Your task to perform on an android device: What's the weather going to be tomorrow? Image 0: 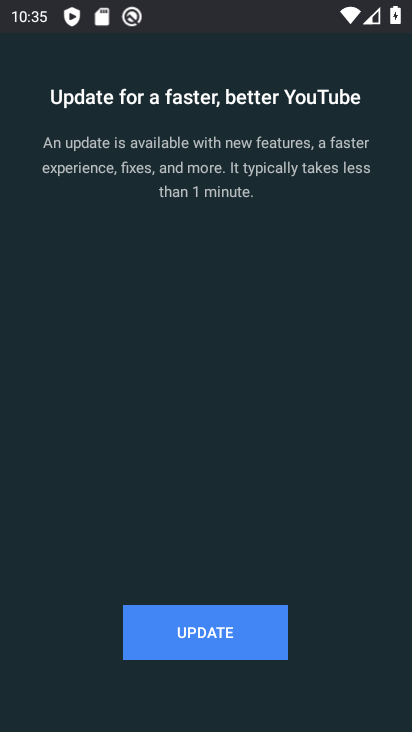
Step 0: press home button
Your task to perform on an android device: What's the weather going to be tomorrow? Image 1: 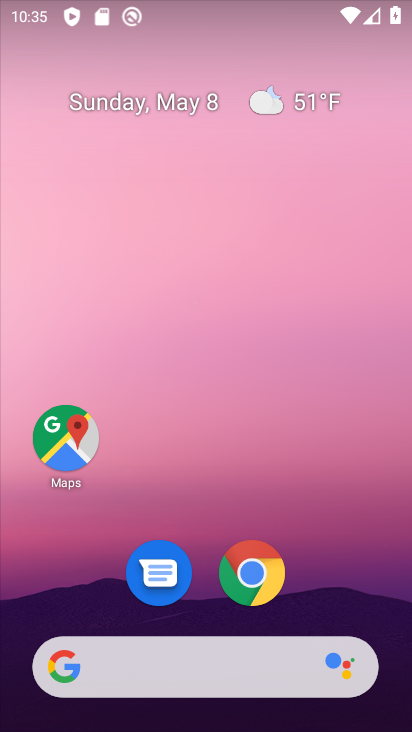
Step 1: drag from (190, 637) to (248, 258)
Your task to perform on an android device: What's the weather going to be tomorrow? Image 2: 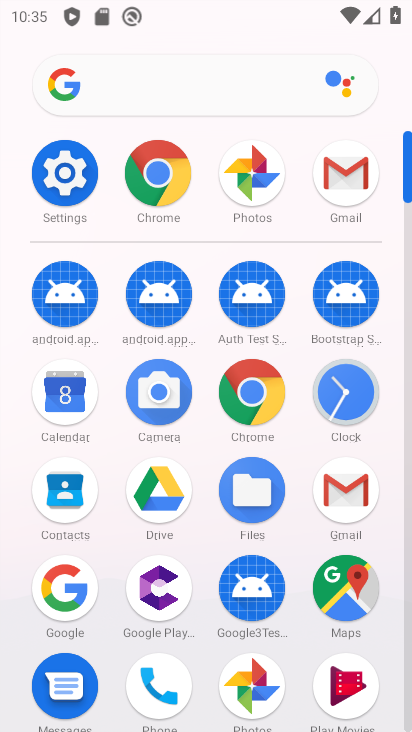
Step 2: click (62, 595)
Your task to perform on an android device: What's the weather going to be tomorrow? Image 3: 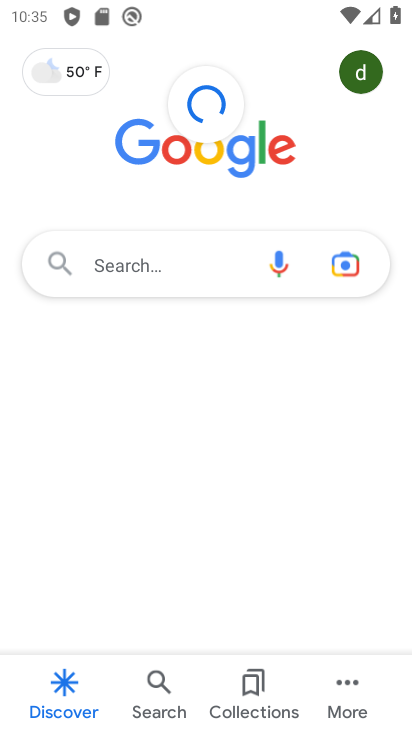
Step 3: click (141, 268)
Your task to perform on an android device: What's the weather going to be tomorrow? Image 4: 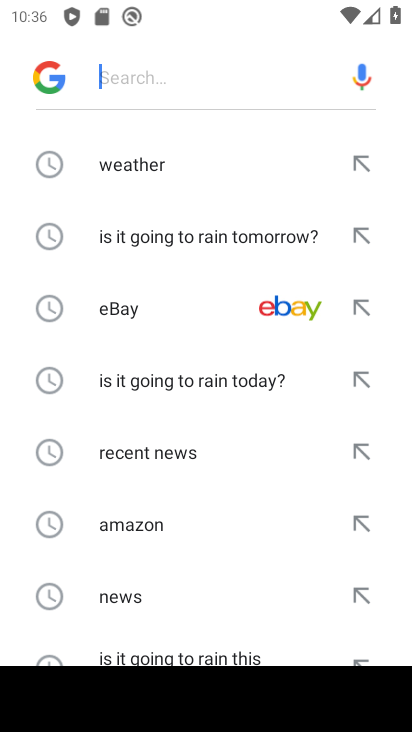
Step 4: type "whats the weather going to be tomorrow"
Your task to perform on an android device: What's the weather going to be tomorrow? Image 5: 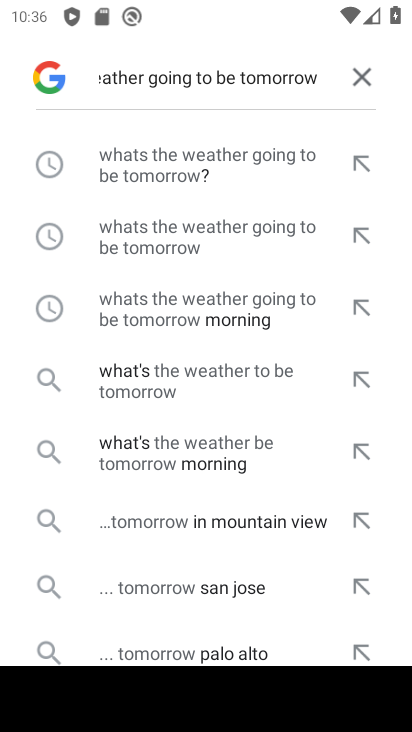
Step 5: click (189, 170)
Your task to perform on an android device: What's the weather going to be tomorrow? Image 6: 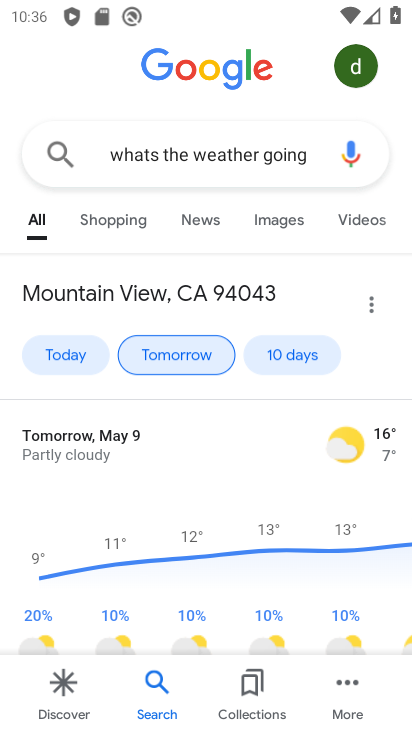
Step 6: drag from (166, 624) to (180, 198)
Your task to perform on an android device: What's the weather going to be tomorrow? Image 7: 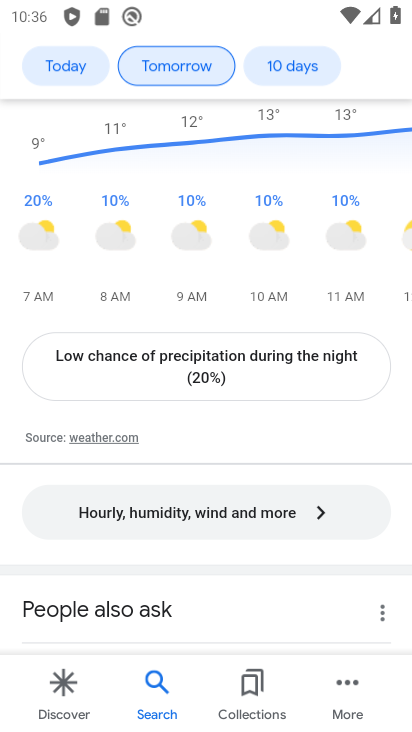
Step 7: click (153, 518)
Your task to perform on an android device: What's the weather going to be tomorrow? Image 8: 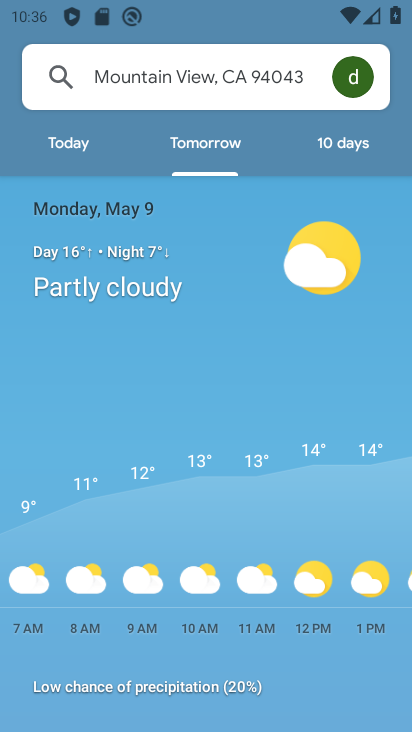
Step 8: task complete